Your task to perform on an android device: turn pop-ups off in chrome Image 0: 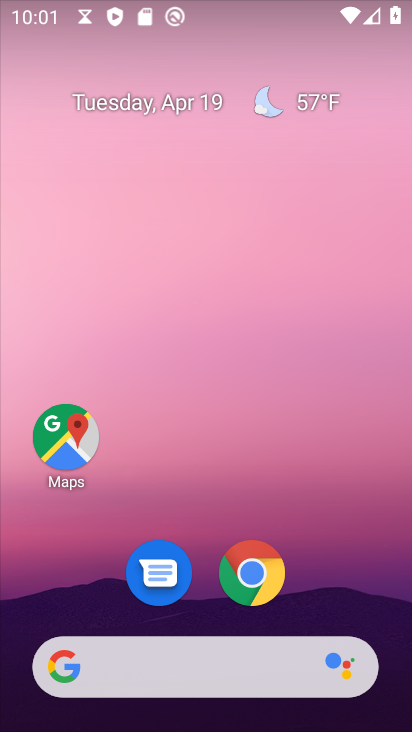
Step 0: drag from (300, 616) to (332, 158)
Your task to perform on an android device: turn pop-ups off in chrome Image 1: 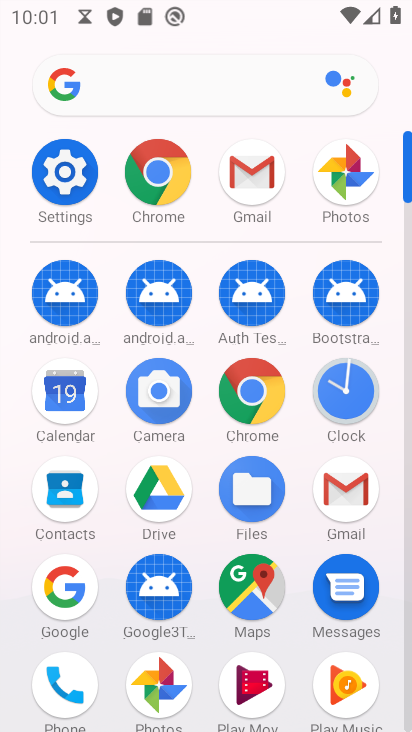
Step 1: click (259, 391)
Your task to perform on an android device: turn pop-ups off in chrome Image 2: 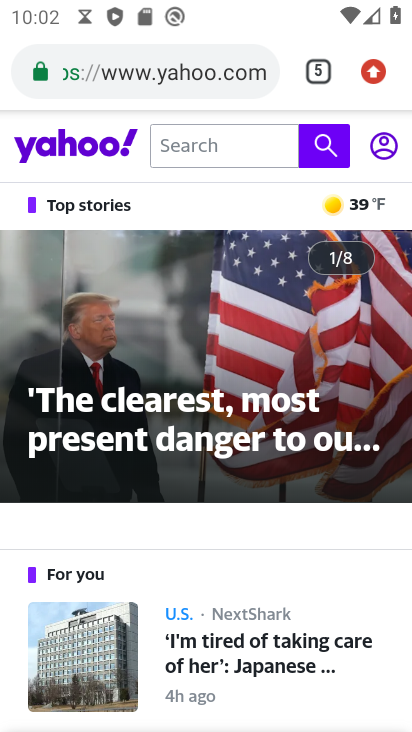
Step 2: click (375, 73)
Your task to perform on an android device: turn pop-ups off in chrome Image 3: 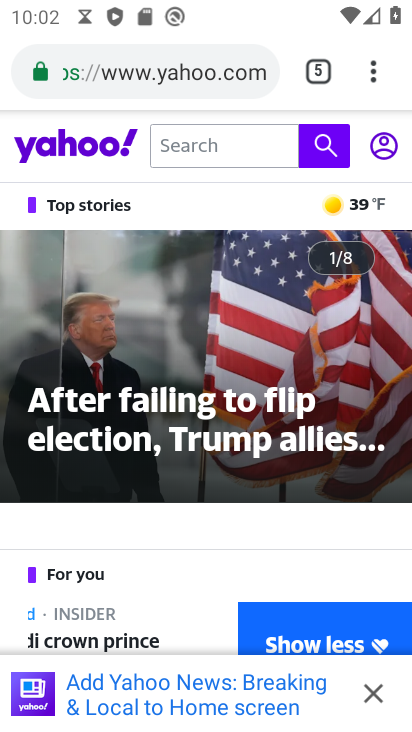
Step 3: click (373, 75)
Your task to perform on an android device: turn pop-ups off in chrome Image 4: 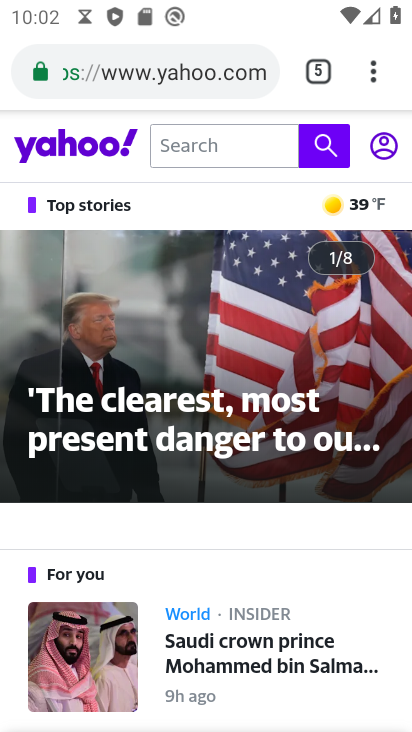
Step 4: click (386, 71)
Your task to perform on an android device: turn pop-ups off in chrome Image 5: 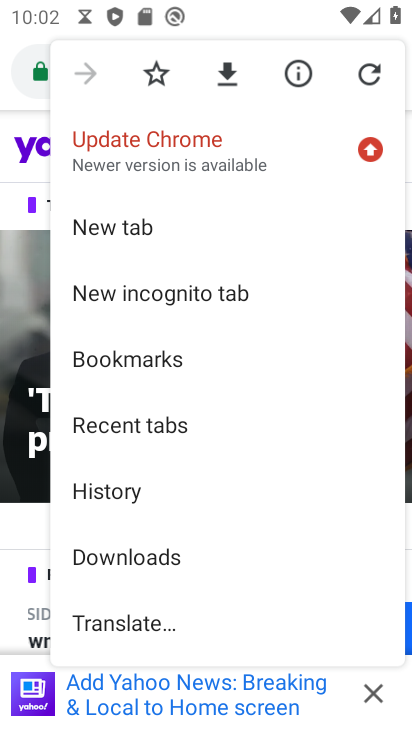
Step 5: drag from (238, 589) to (229, 235)
Your task to perform on an android device: turn pop-ups off in chrome Image 6: 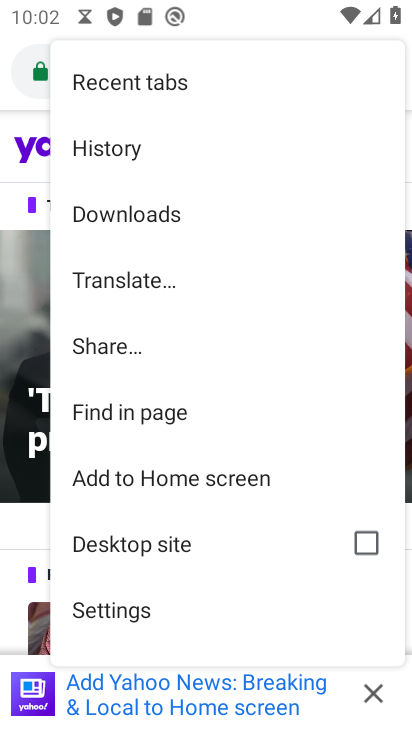
Step 6: click (125, 611)
Your task to perform on an android device: turn pop-ups off in chrome Image 7: 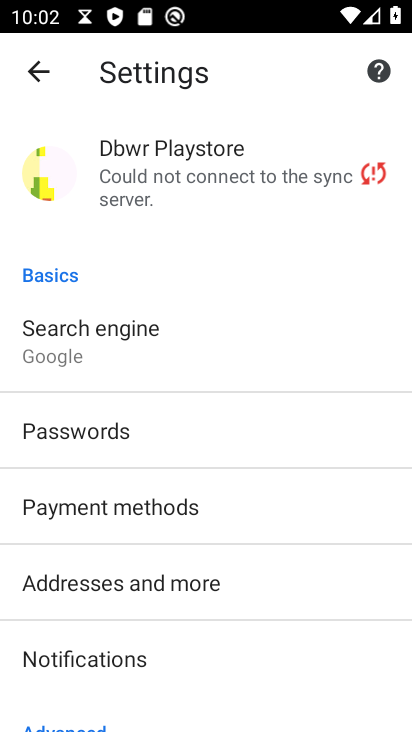
Step 7: drag from (228, 656) to (302, 233)
Your task to perform on an android device: turn pop-ups off in chrome Image 8: 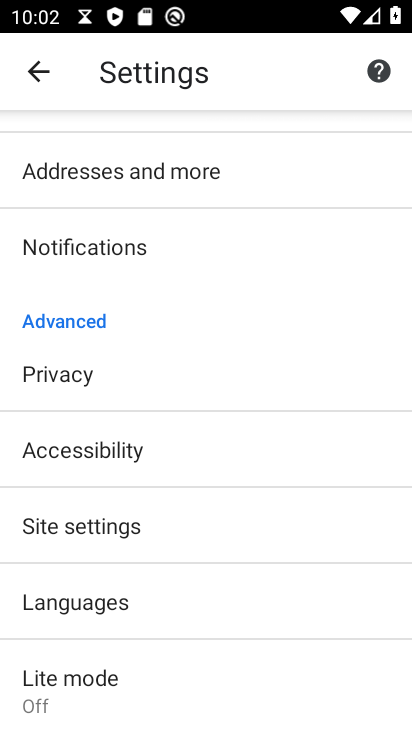
Step 8: click (90, 523)
Your task to perform on an android device: turn pop-ups off in chrome Image 9: 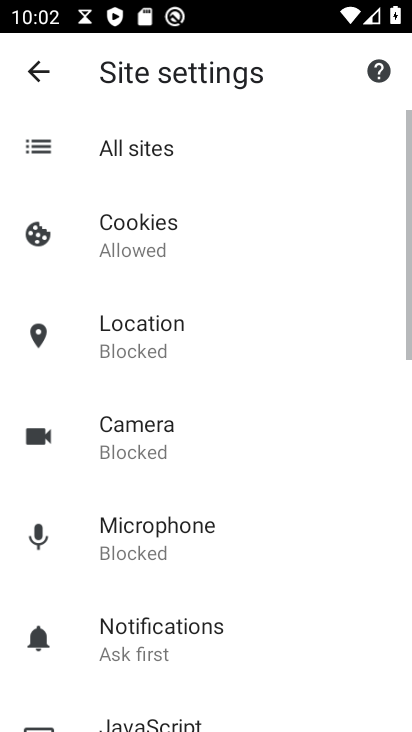
Step 9: drag from (232, 540) to (225, 200)
Your task to perform on an android device: turn pop-ups off in chrome Image 10: 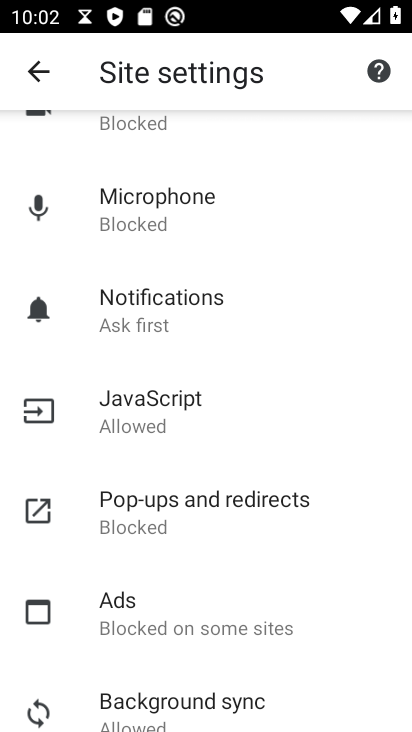
Step 10: click (207, 507)
Your task to perform on an android device: turn pop-ups off in chrome Image 11: 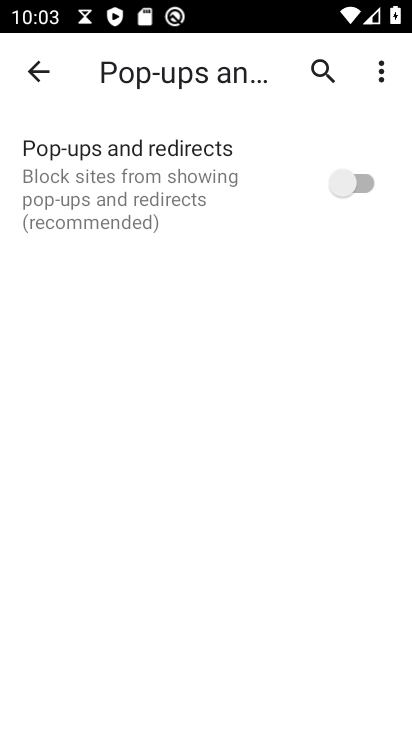
Step 11: task complete